Your task to perform on an android device: toggle notification dots Image 0: 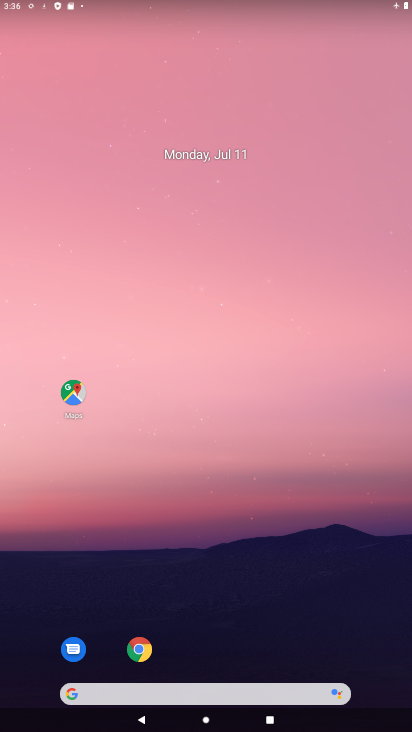
Step 0: drag from (396, 510) to (201, 6)
Your task to perform on an android device: toggle notification dots Image 1: 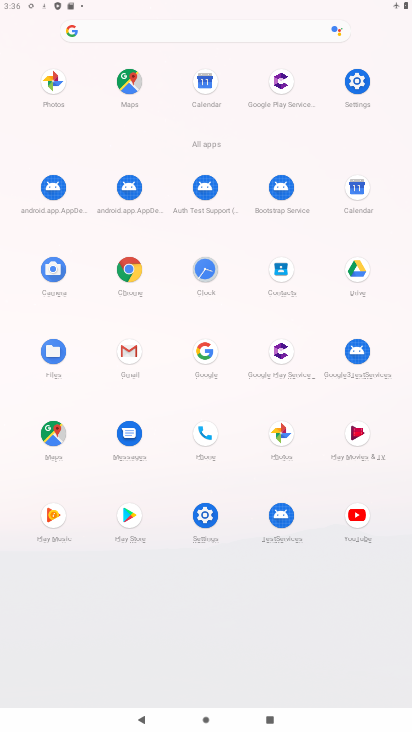
Step 1: click (364, 83)
Your task to perform on an android device: toggle notification dots Image 2: 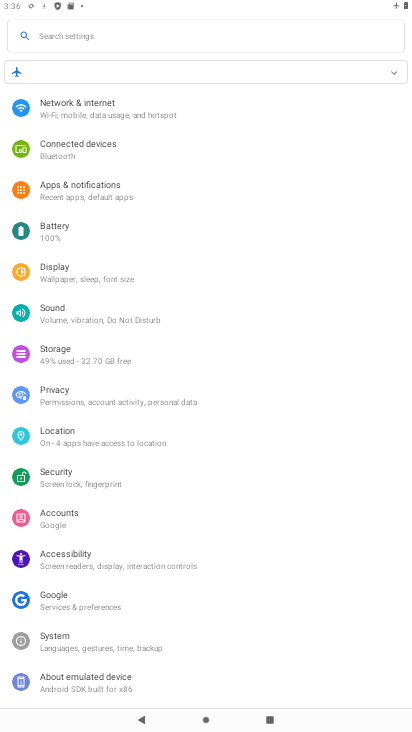
Step 2: click (157, 183)
Your task to perform on an android device: toggle notification dots Image 3: 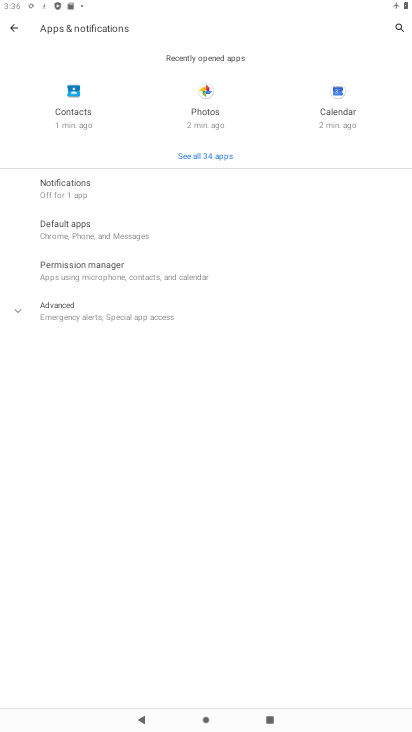
Step 3: click (134, 190)
Your task to perform on an android device: toggle notification dots Image 4: 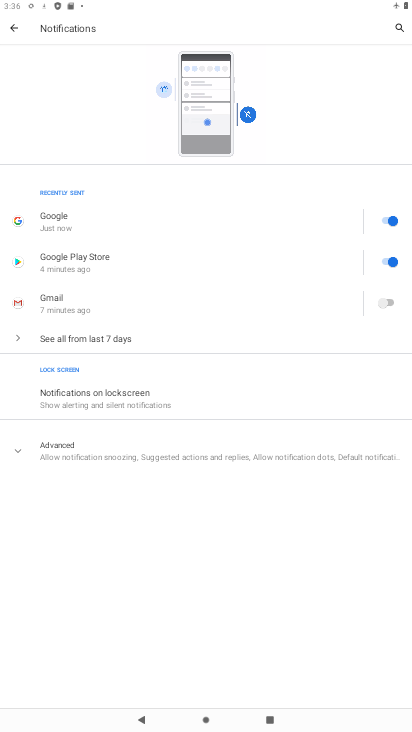
Step 4: click (110, 444)
Your task to perform on an android device: toggle notification dots Image 5: 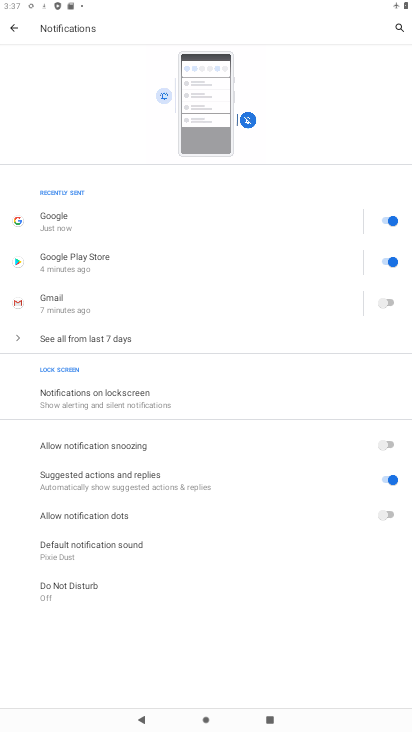
Step 5: click (363, 516)
Your task to perform on an android device: toggle notification dots Image 6: 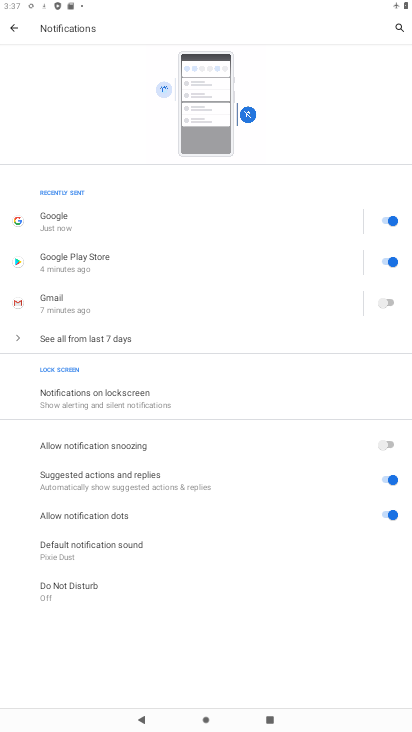
Step 6: task complete